Your task to perform on an android device: turn notification dots on Image 0: 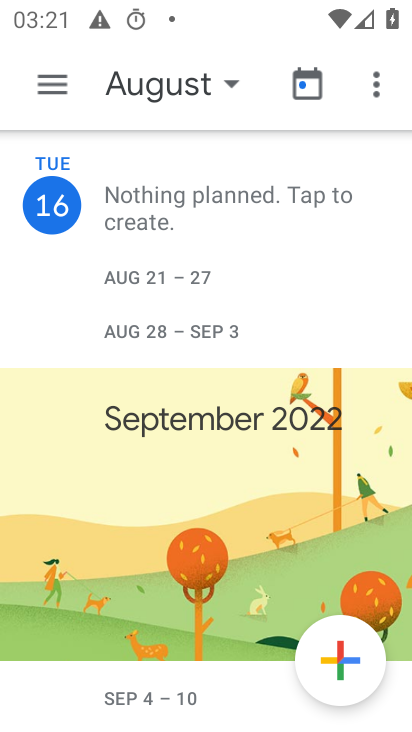
Step 0: press home button
Your task to perform on an android device: turn notification dots on Image 1: 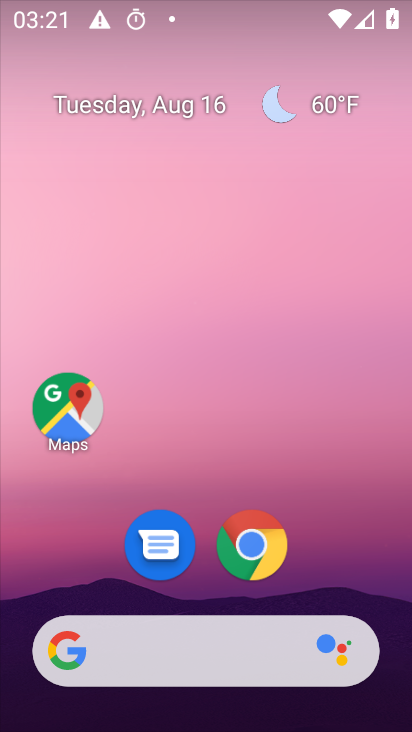
Step 1: drag from (165, 623) to (162, 336)
Your task to perform on an android device: turn notification dots on Image 2: 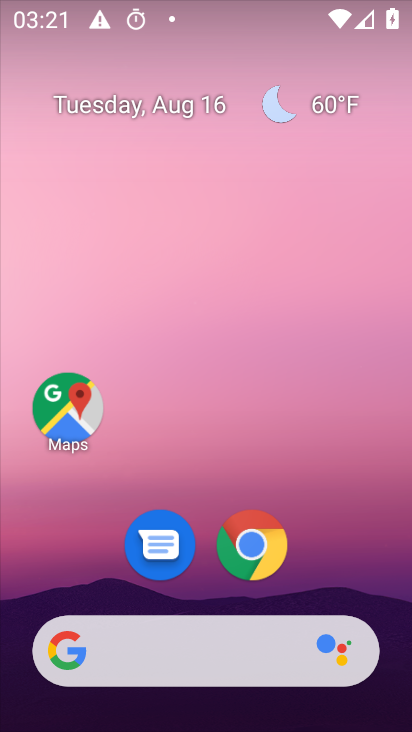
Step 2: drag from (178, 564) to (178, 261)
Your task to perform on an android device: turn notification dots on Image 3: 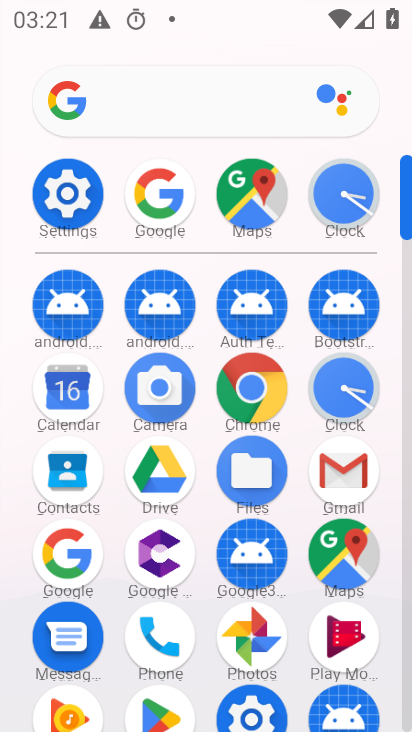
Step 3: click (67, 202)
Your task to perform on an android device: turn notification dots on Image 4: 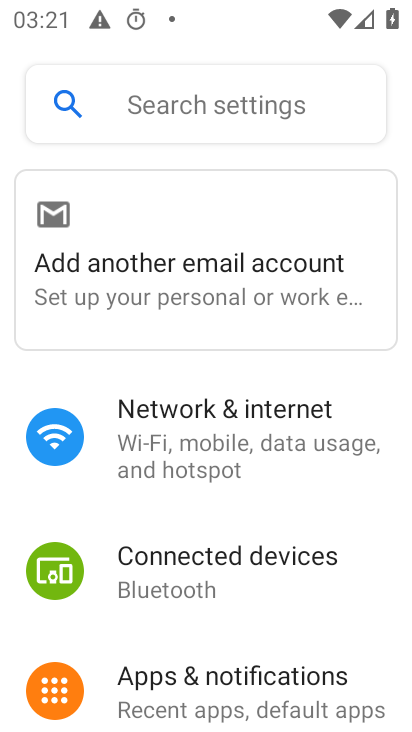
Step 4: click (244, 691)
Your task to perform on an android device: turn notification dots on Image 5: 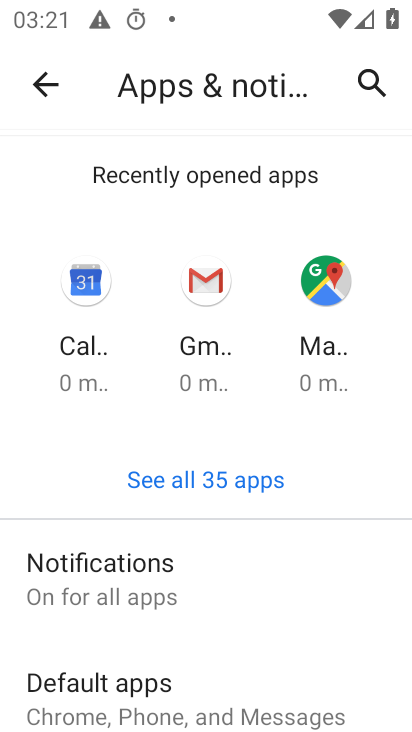
Step 5: click (85, 591)
Your task to perform on an android device: turn notification dots on Image 6: 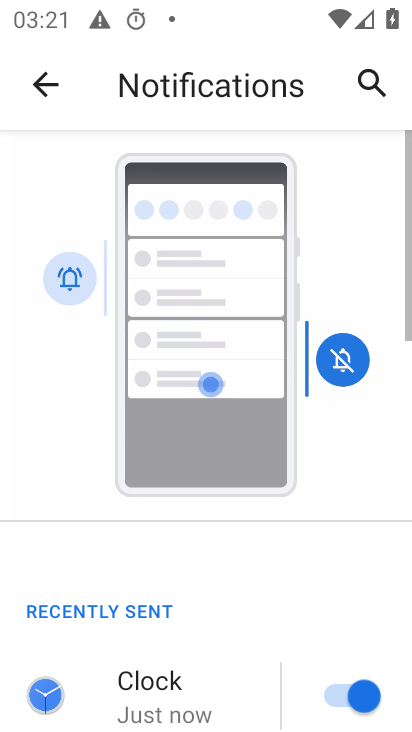
Step 6: drag from (193, 705) to (190, 371)
Your task to perform on an android device: turn notification dots on Image 7: 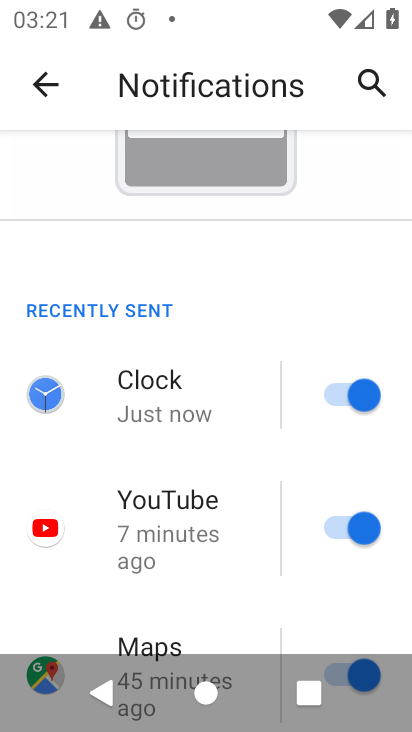
Step 7: drag from (225, 621) to (225, 334)
Your task to perform on an android device: turn notification dots on Image 8: 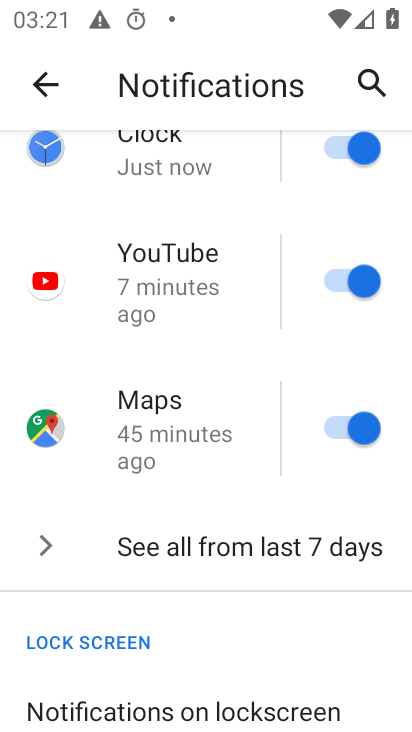
Step 8: drag from (187, 493) to (187, 332)
Your task to perform on an android device: turn notification dots on Image 9: 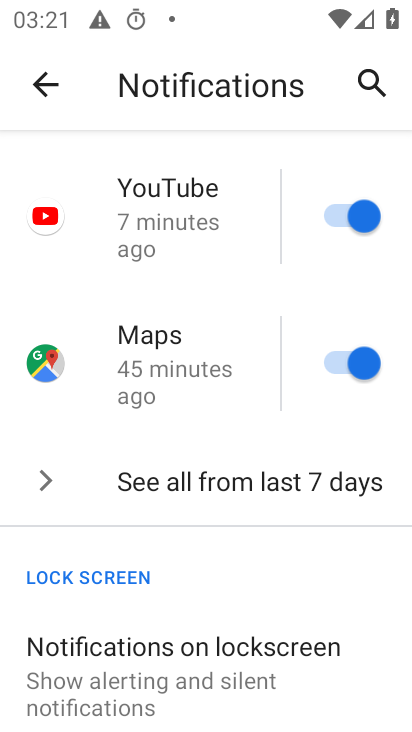
Step 9: drag from (181, 689) to (204, 416)
Your task to perform on an android device: turn notification dots on Image 10: 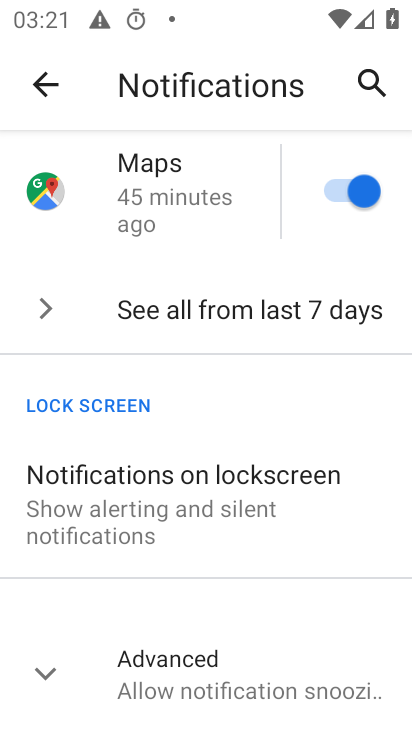
Step 10: click (176, 686)
Your task to perform on an android device: turn notification dots on Image 11: 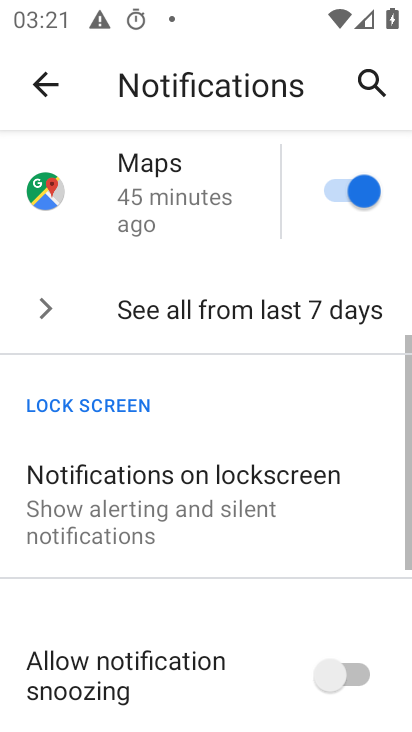
Step 11: drag from (229, 702) to (239, 412)
Your task to perform on an android device: turn notification dots on Image 12: 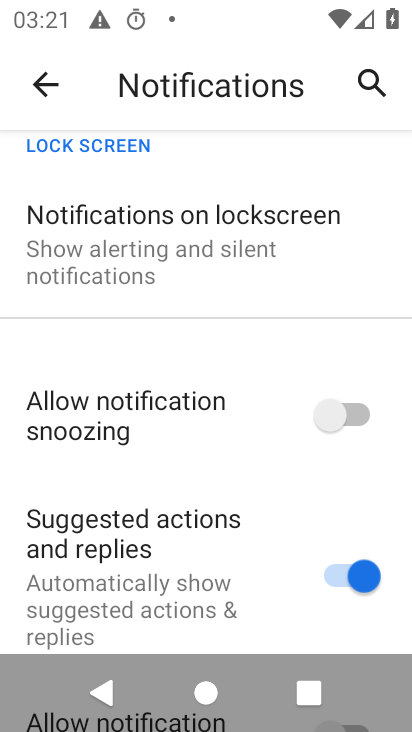
Step 12: drag from (191, 613) to (191, 397)
Your task to perform on an android device: turn notification dots on Image 13: 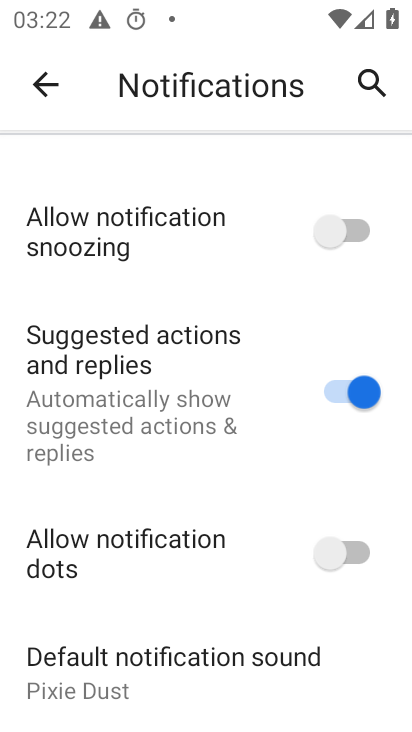
Step 13: click (362, 549)
Your task to perform on an android device: turn notification dots on Image 14: 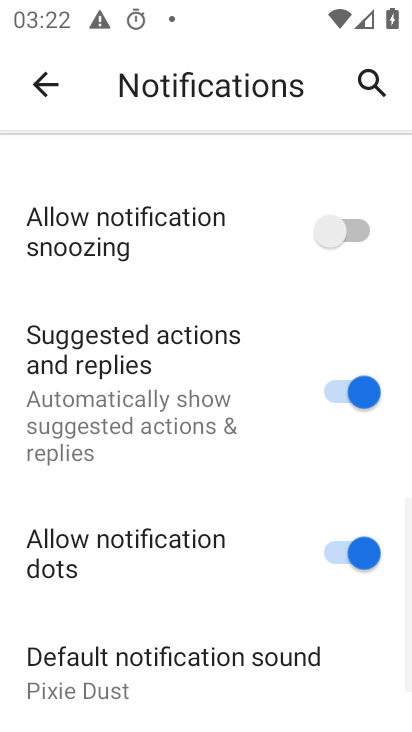
Step 14: task complete